Your task to perform on an android device: Open the calendar app, open the side menu, and click the "Day" option Image 0: 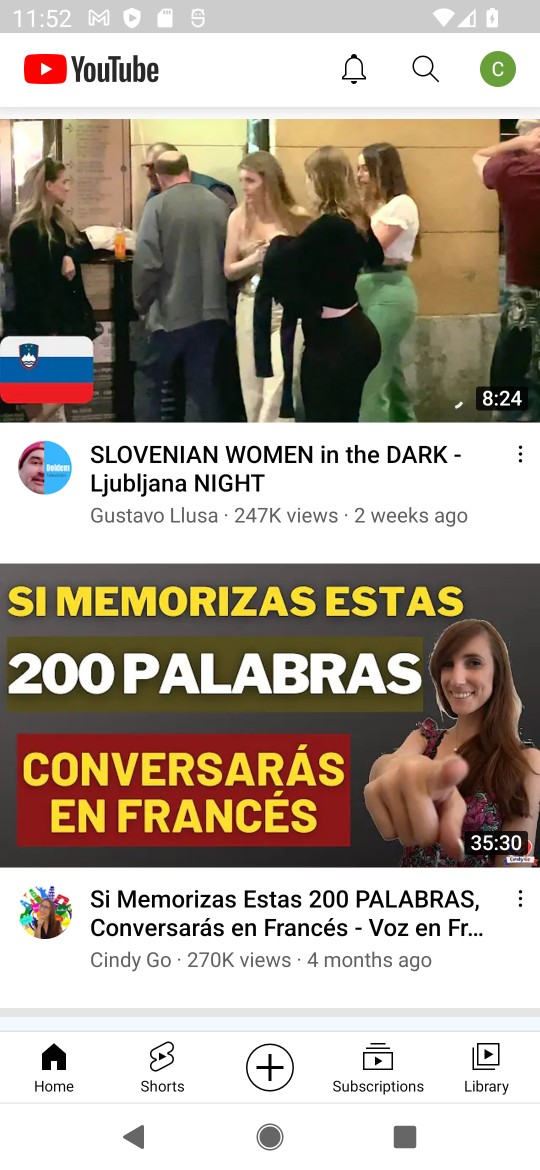
Step 0: press back button
Your task to perform on an android device: Open the calendar app, open the side menu, and click the "Day" option Image 1: 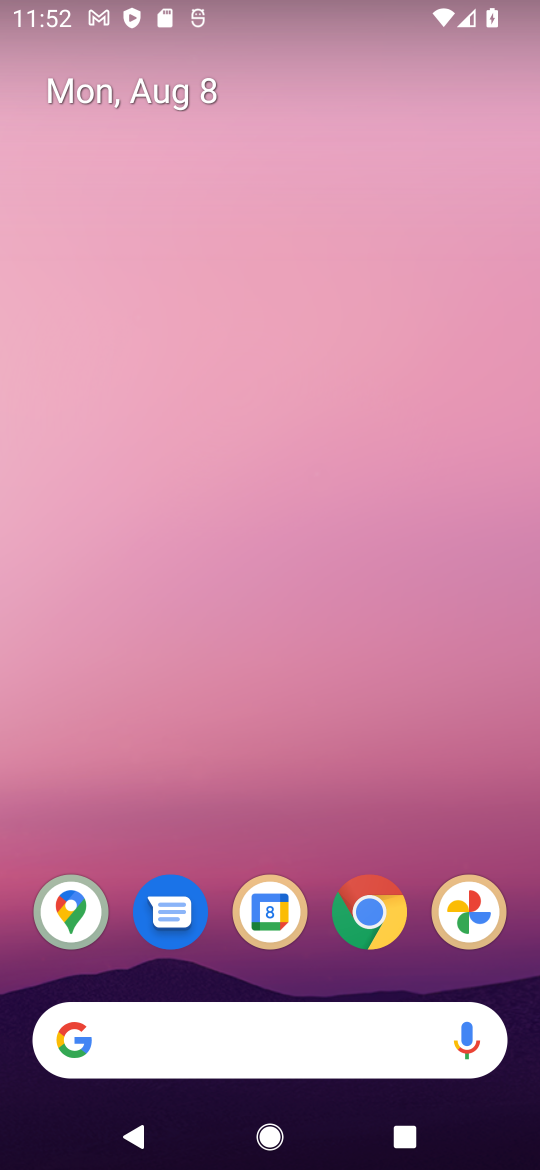
Step 1: drag from (248, 859) to (228, 9)
Your task to perform on an android device: Open the calendar app, open the side menu, and click the "Day" option Image 2: 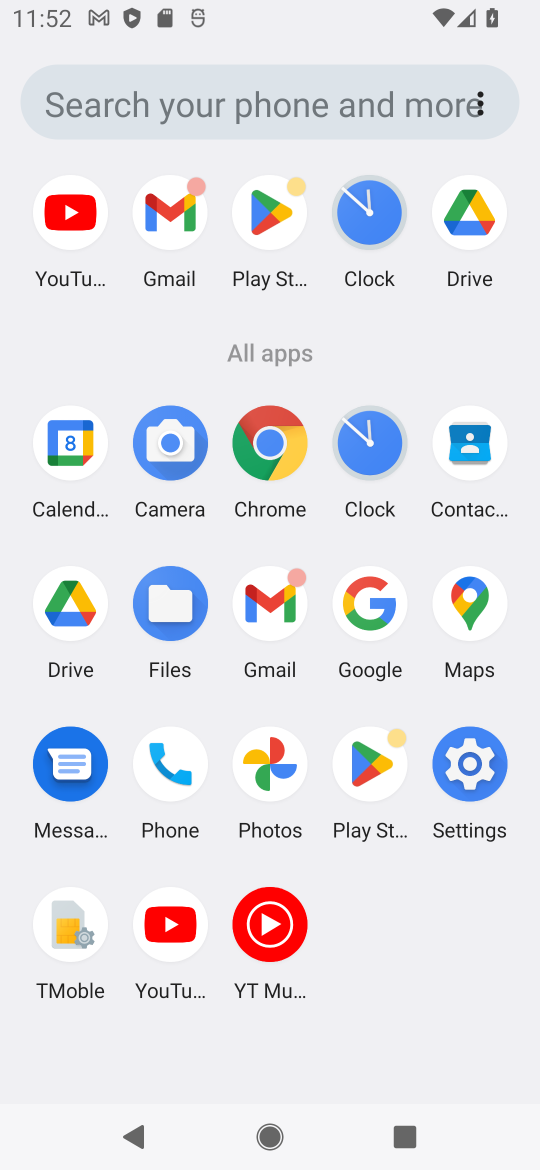
Step 2: click (77, 463)
Your task to perform on an android device: Open the calendar app, open the side menu, and click the "Day" option Image 3: 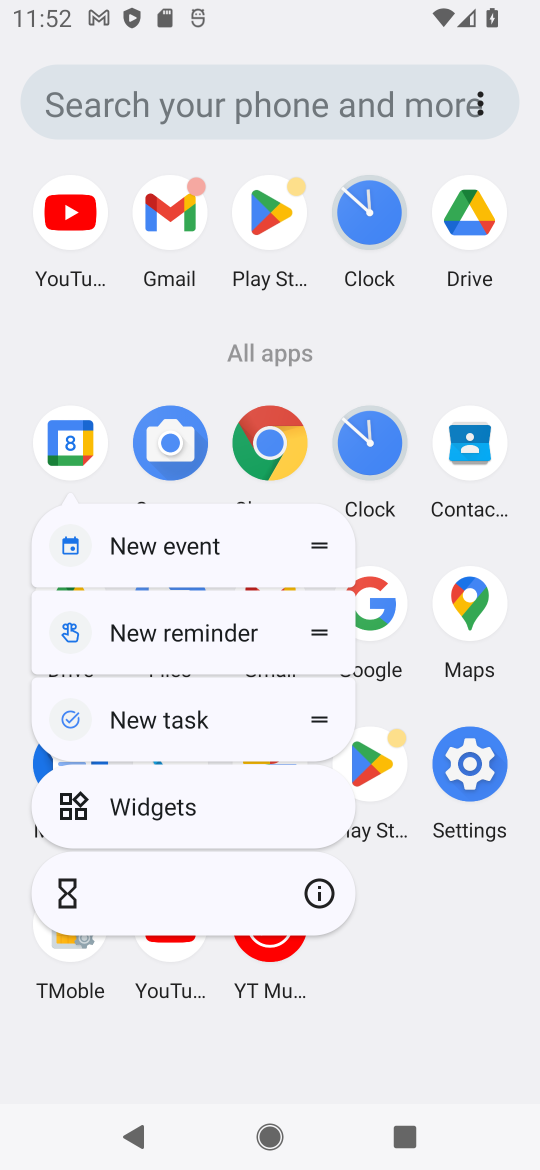
Step 3: click (77, 428)
Your task to perform on an android device: Open the calendar app, open the side menu, and click the "Day" option Image 4: 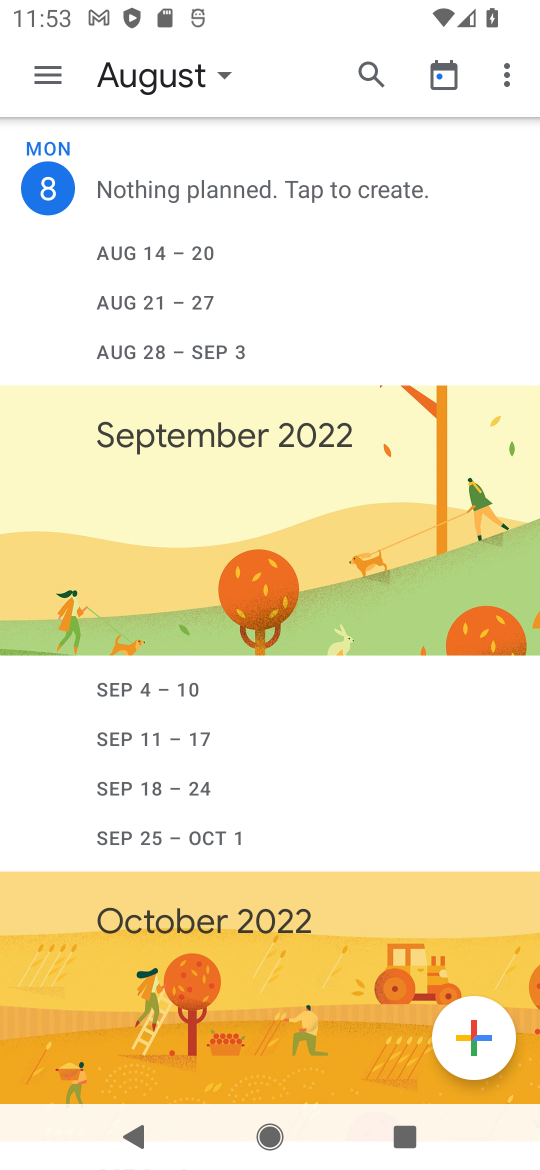
Step 4: click (34, 73)
Your task to perform on an android device: Open the calendar app, open the side menu, and click the "Day" option Image 5: 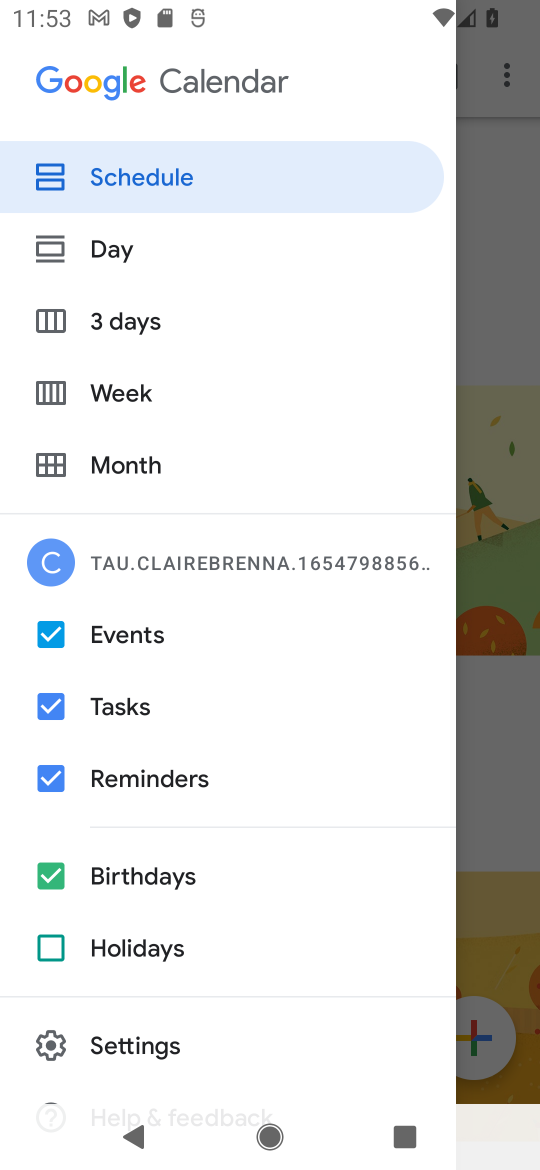
Step 5: click (151, 243)
Your task to perform on an android device: Open the calendar app, open the side menu, and click the "Day" option Image 6: 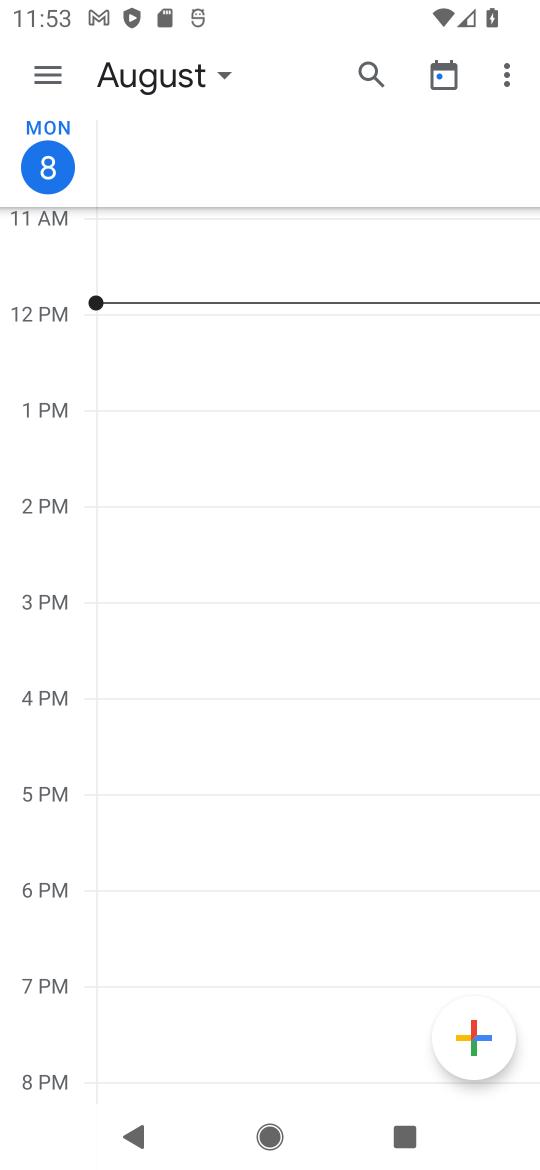
Step 6: task complete